Your task to perform on an android device: Open calendar and show me the third week of next month Image 0: 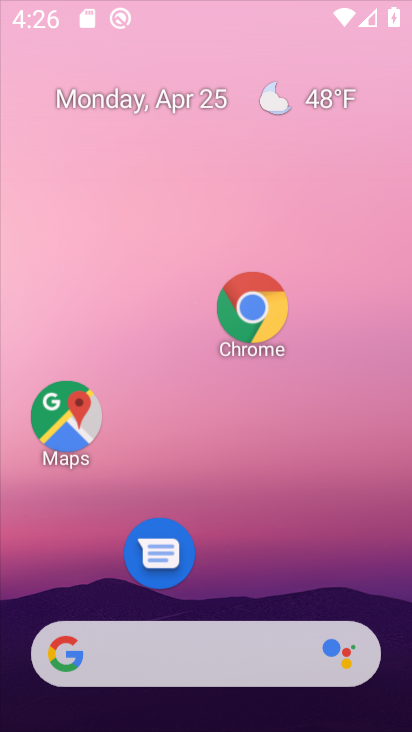
Step 0: click (385, 62)
Your task to perform on an android device: Open calendar and show me the third week of next month Image 1: 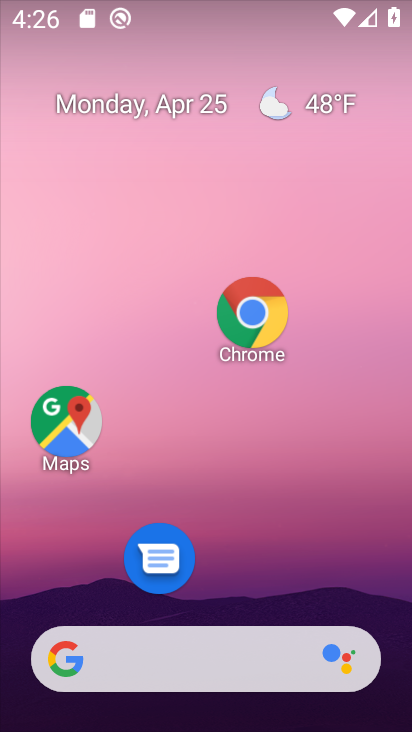
Step 1: press home button
Your task to perform on an android device: Open calendar and show me the third week of next month Image 2: 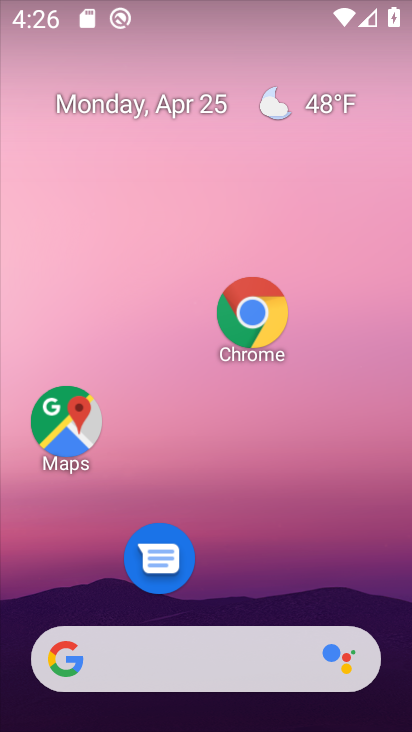
Step 2: drag from (328, 339) to (299, 182)
Your task to perform on an android device: Open calendar and show me the third week of next month Image 3: 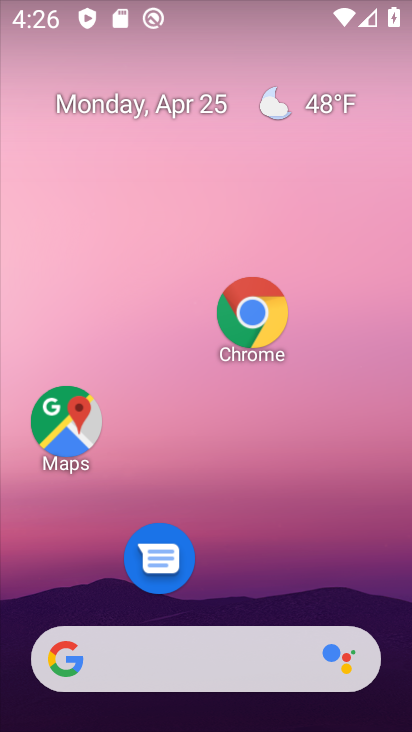
Step 3: drag from (351, 529) to (300, 88)
Your task to perform on an android device: Open calendar and show me the third week of next month Image 4: 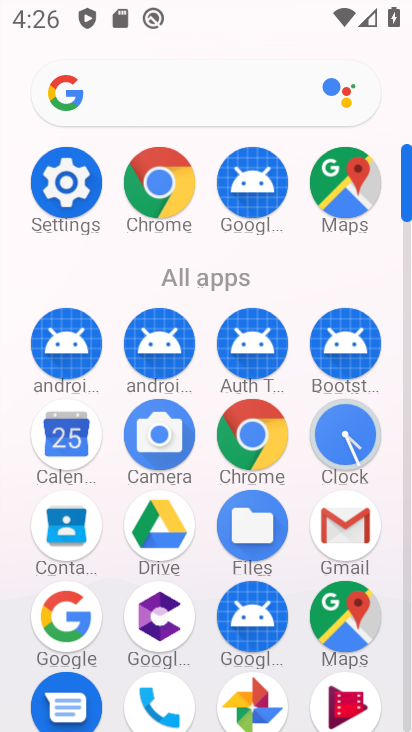
Step 4: click (70, 427)
Your task to perform on an android device: Open calendar and show me the third week of next month Image 5: 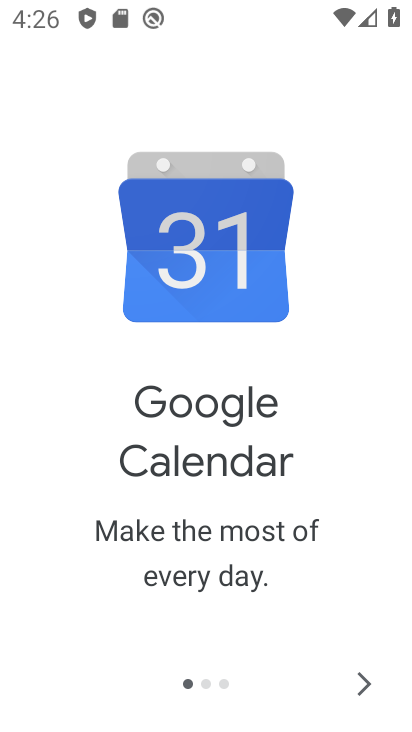
Step 5: click (376, 677)
Your task to perform on an android device: Open calendar and show me the third week of next month Image 6: 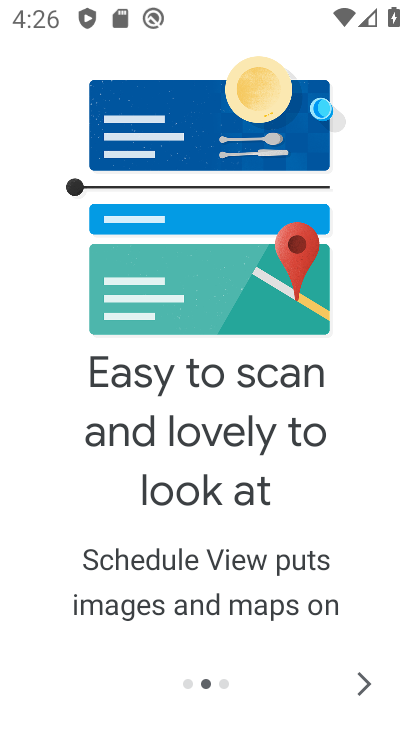
Step 6: click (376, 677)
Your task to perform on an android device: Open calendar and show me the third week of next month Image 7: 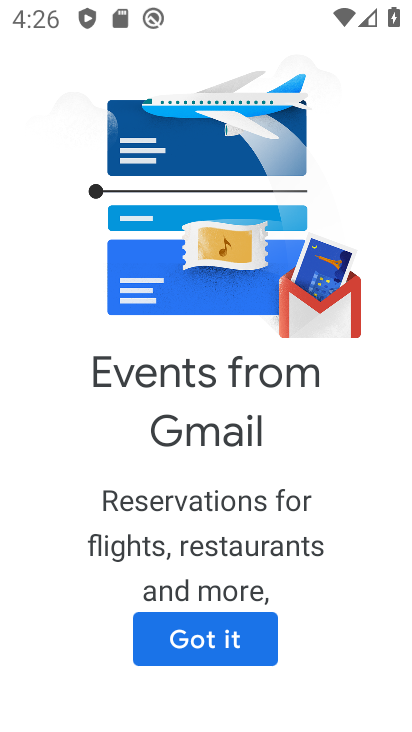
Step 7: click (255, 650)
Your task to perform on an android device: Open calendar and show me the third week of next month Image 8: 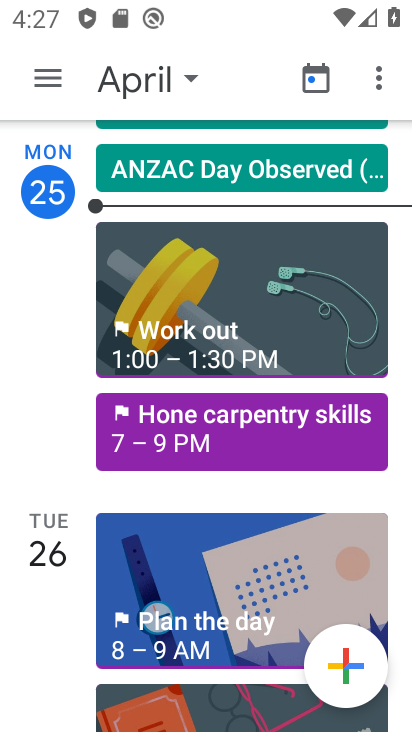
Step 8: click (169, 83)
Your task to perform on an android device: Open calendar and show me the third week of next month Image 9: 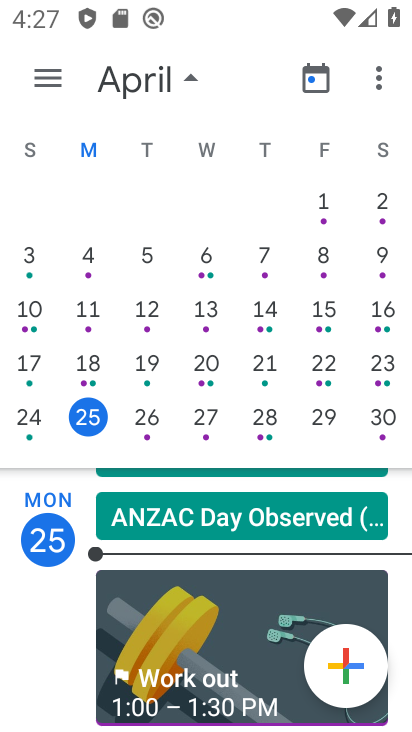
Step 9: drag from (380, 349) to (10, 443)
Your task to perform on an android device: Open calendar and show me the third week of next month Image 10: 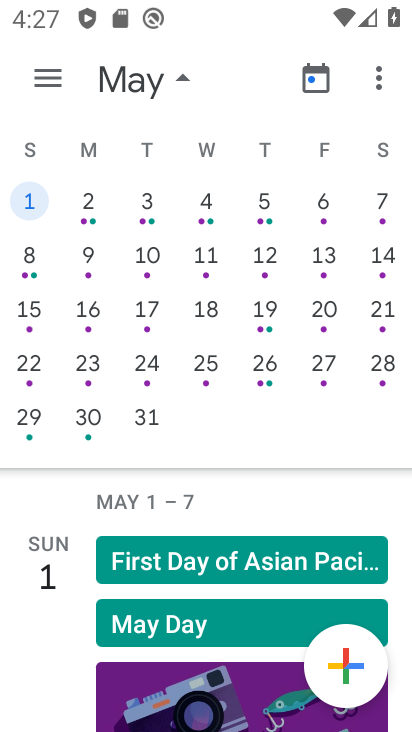
Step 10: click (378, 306)
Your task to perform on an android device: Open calendar and show me the third week of next month Image 11: 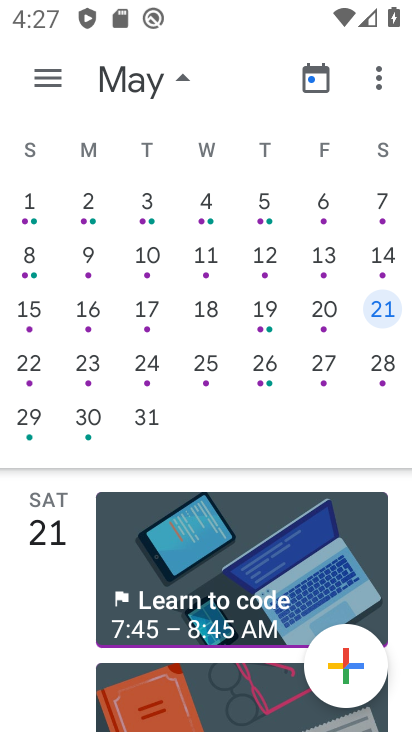
Step 11: task complete